Your task to perform on an android device: Open the stopwatch Image 0: 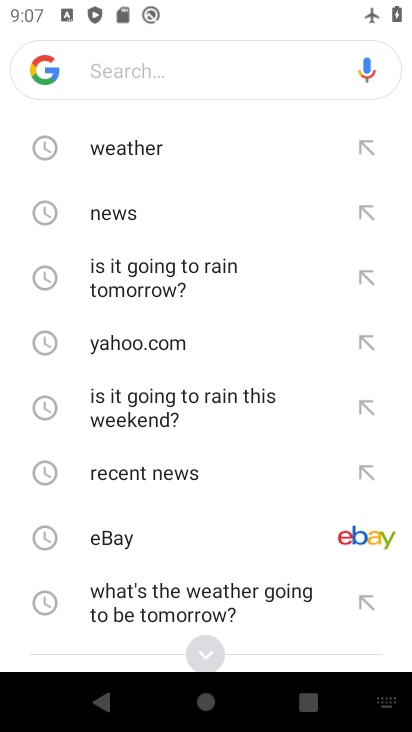
Step 0: press home button
Your task to perform on an android device: Open the stopwatch Image 1: 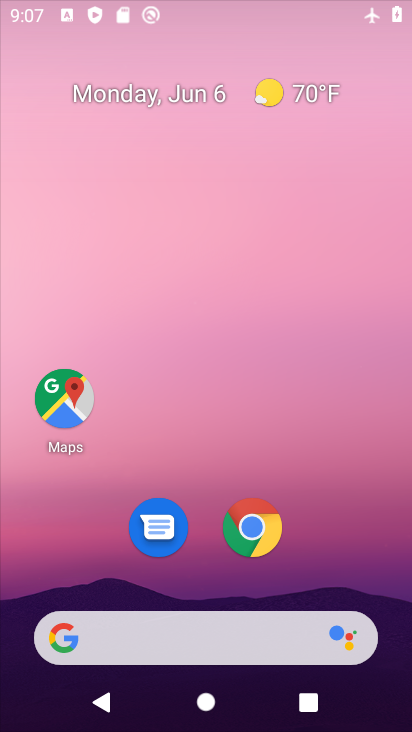
Step 1: drag from (200, 593) to (237, 236)
Your task to perform on an android device: Open the stopwatch Image 2: 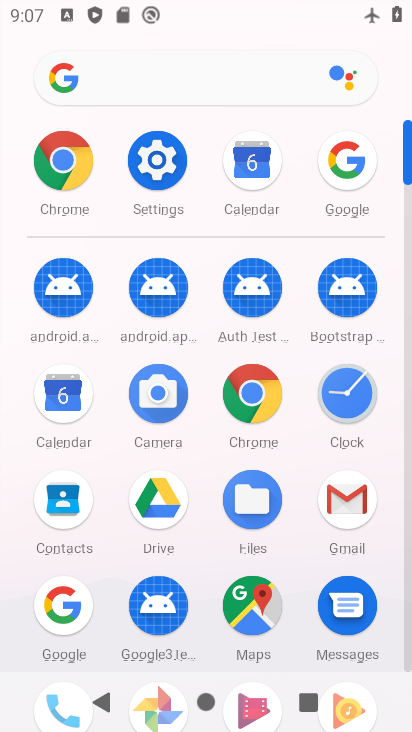
Step 2: click (360, 420)
Your task to perform on an android device: Open the stopwatch Image 3: 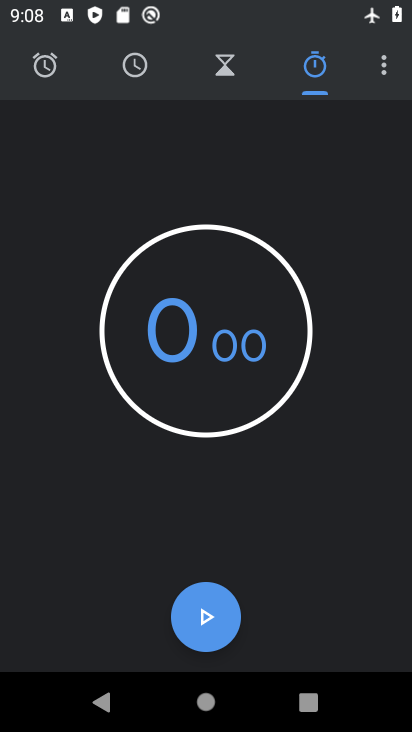
Step 3: task complete